Your task to perform on an android device: Show me productivity apps on the Play Store Image 0: 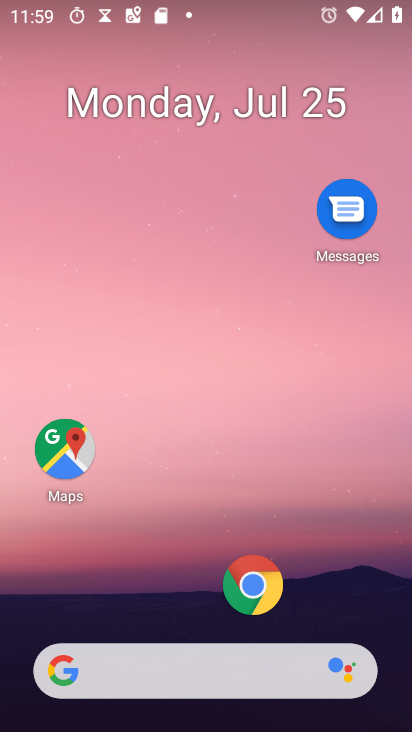
Step 0: drag from (180, 647) to (224, 65)
Your task to perform on an android device: Show me productivity apps on the Play Store Image 1: 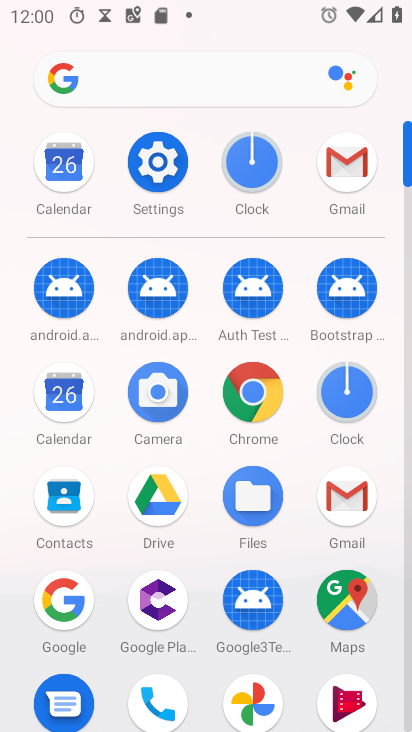
Step 1: drag from (197, 593) to (320, 136)
Your task to perform on an android device: Show me productivity apps on the Play Store Image 2: 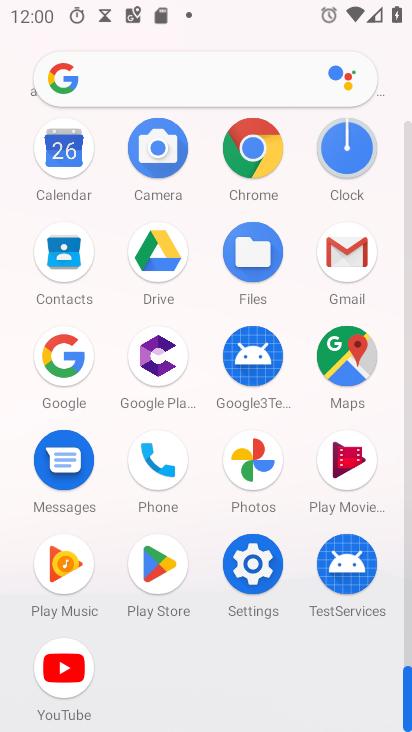
Step 2: click (150, 572)
Your task to perform on an android device: Show me productivity apps on the Play Store Image 3: 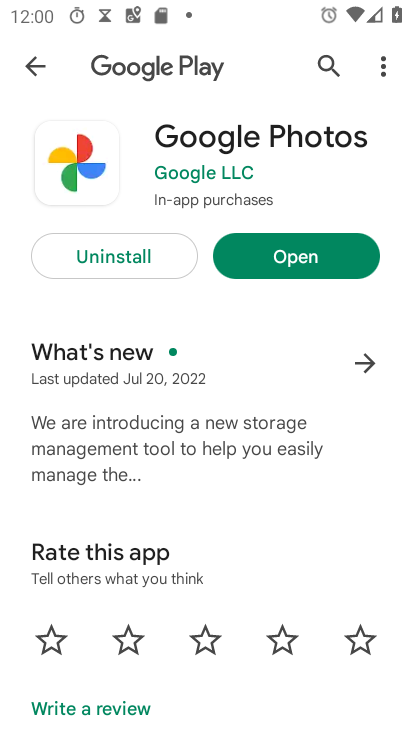
Step 3: click (35, 67)
Your task to perform on an android device: Show me productivity apps on the Play Store Image 4: 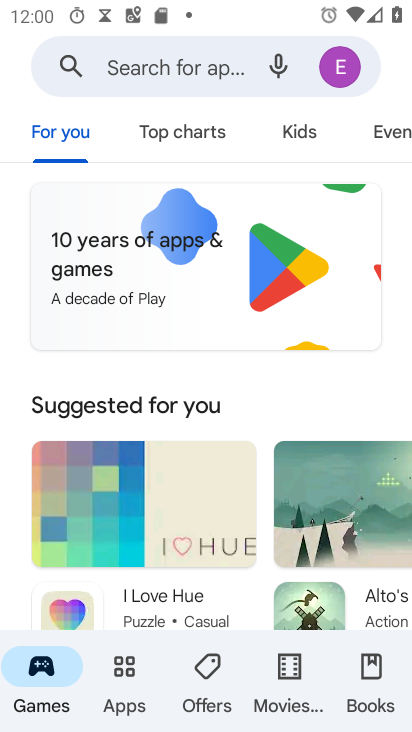
Step 4: click (114, 678)
Your task to perform on an android device: Show me productivity apps on the Play Store Image 5: 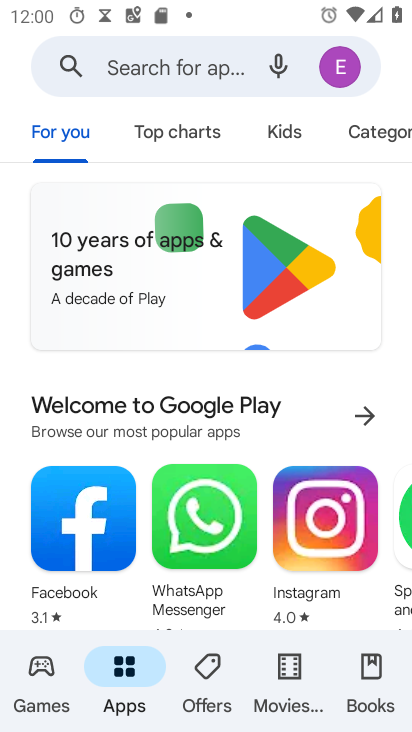
Step 5: click (371, 132)
Your task to perform on an android device: Show me productivity apps on the Play Store Image 6: 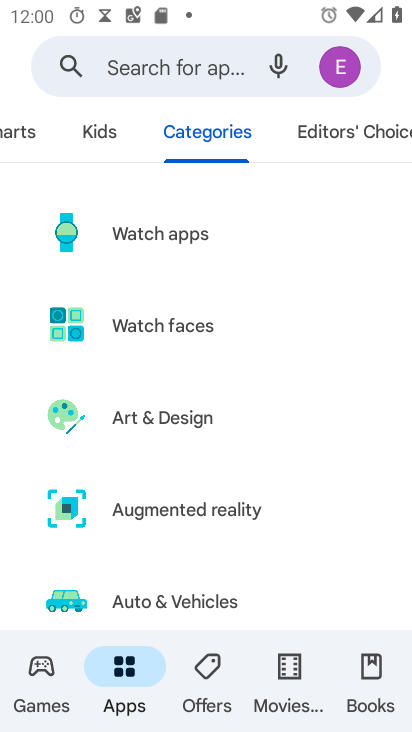
Step 6: drag from (302, 547) to (339, 65)
Your task to perform on an android device: Show me productivity apps on the Play Store Image 7: 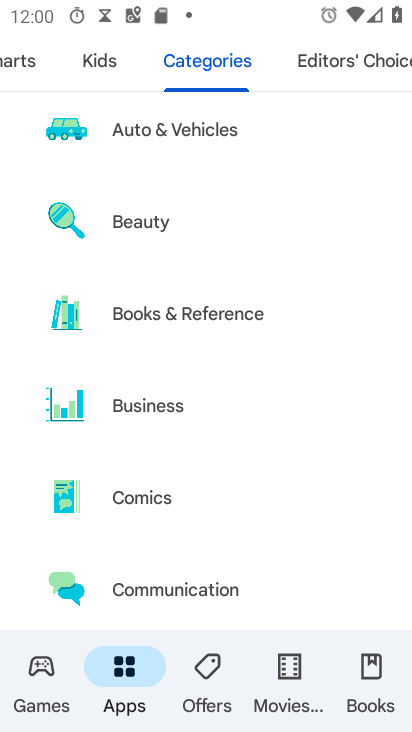
Step 7: drag from (267, 555) to (364, 147)
Your task to perform on an android device: Show me productivity apps on the Play Store Image 8: 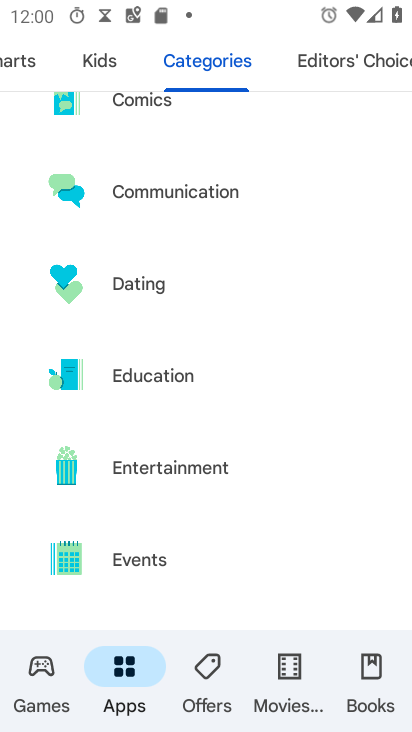
Step 8: drag from (322, 239) to (340, 124)
Your task to perform on an android device: Show me productivity apps on the Play Store Image 9: 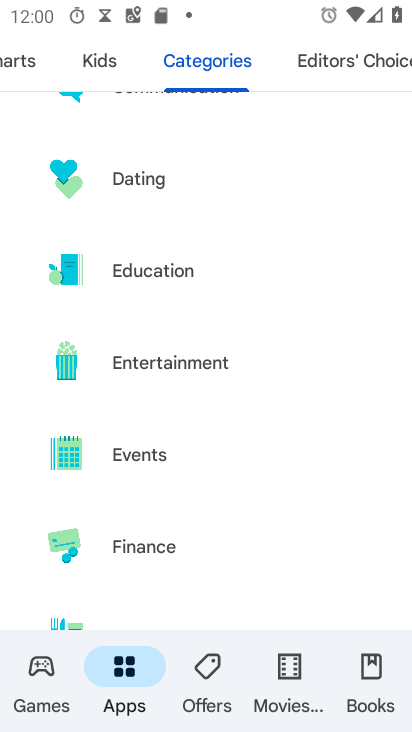
Step 9: drag from (251, 537) to (326, 73)
Your task to perform on an android device: Show me productivity apps on the Play Store Image 10: 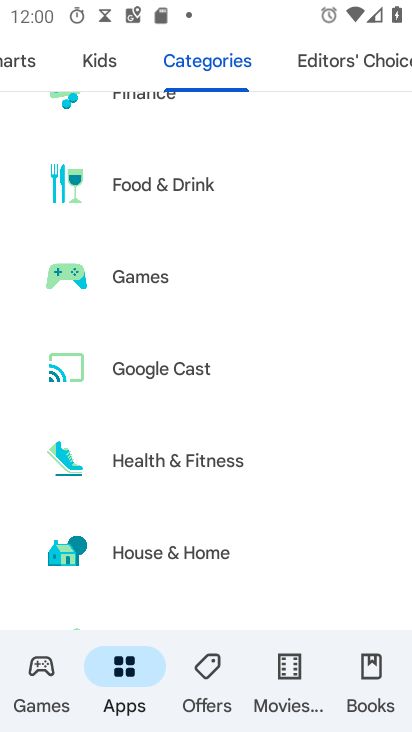
Step 10: drag from (232, 536) to (347, 108)
Your task to perform on an android device: Show me productivity apps on the Play Store Image 11: 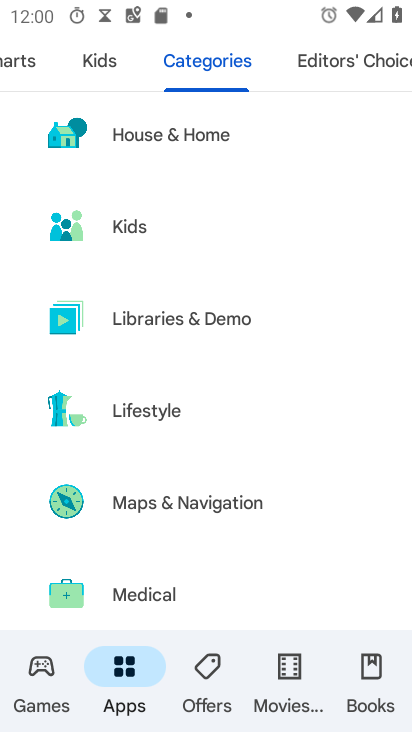
Step 11: drag from (275, 550) to (347, 91)
Your task to perform on an android device: Show me productivity apps on the Play Store Image 12: 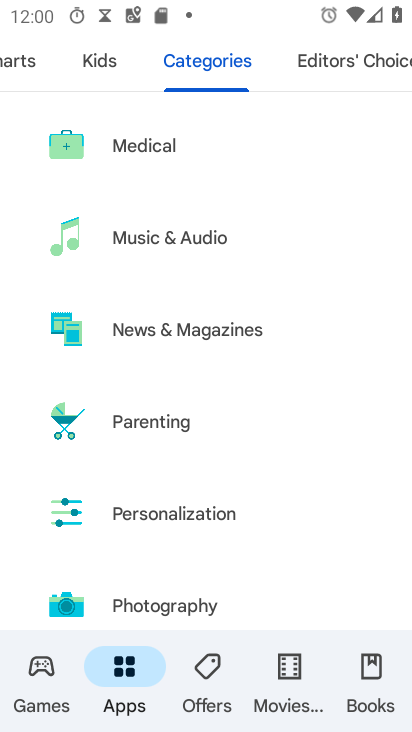
Step 12: drag from (304, 567) to (334, 193)
Your task to perform on an android device: Show me productivity apps on the Play Store Image 13: 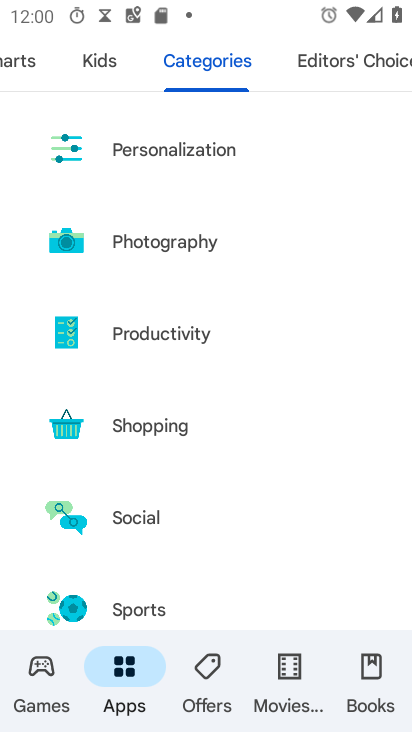
Step 13: click (201, 331)
Your task to perform on an android device: Show me productivity apps on the Play Store Image 14: 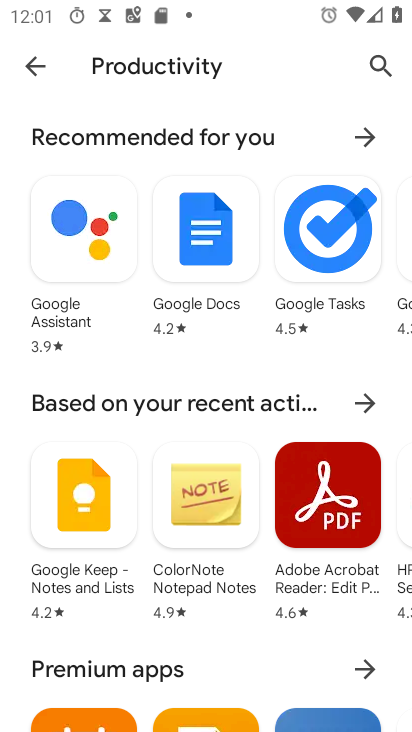
Step 14: task complete